Your task to perform on an android device: Open Google Chrome Image 0: 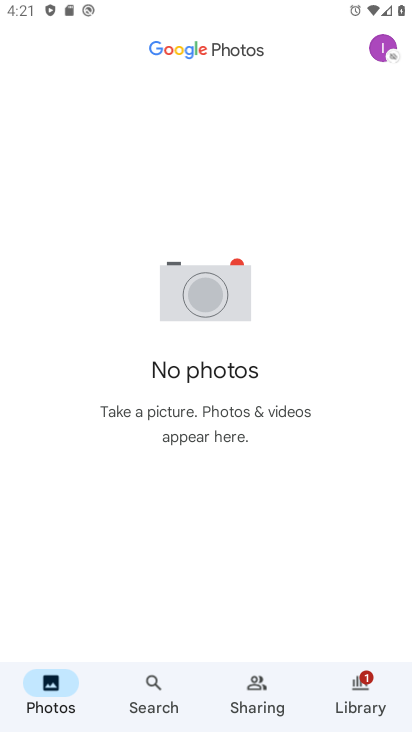
Step 0: press home button
Your task to perform on an android device: Open Google Chrome Image 1: 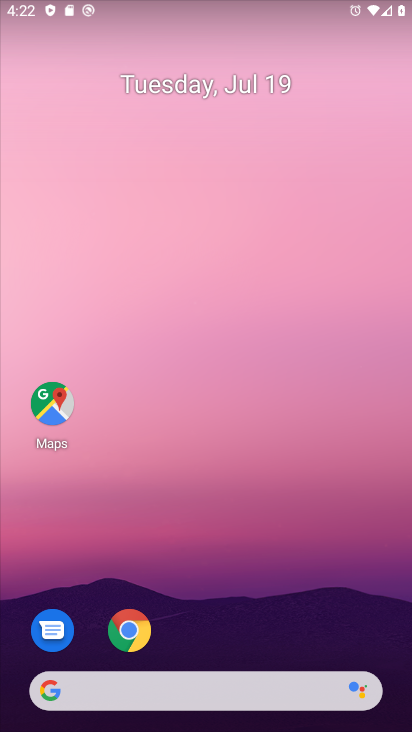
Step 1: click (129, 629)
Your task to perform on an android device: Open Google Chrome Image 2: 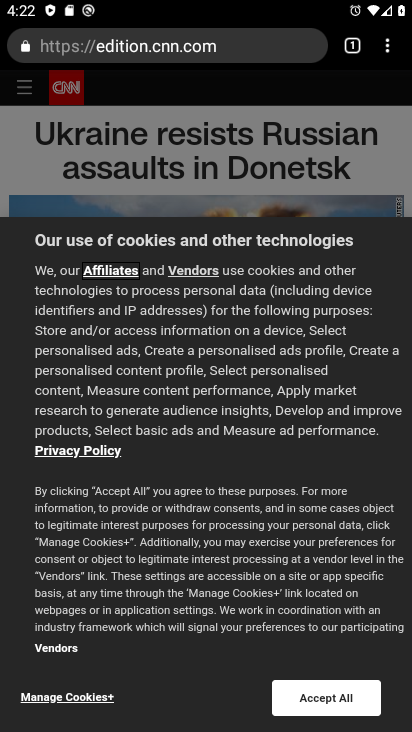
Step 2: task complete